Your task to perform on an android device: See recent photos Image 0: 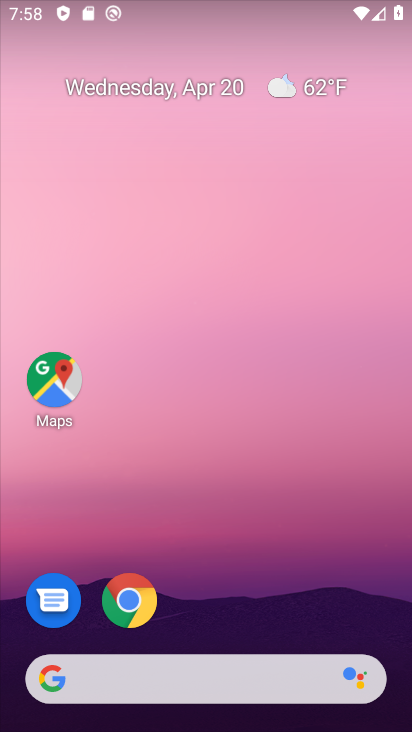
Step 0: drag from (205, 697) to (200, 115)
Your task to perform on an android device: See recent photos Image 1: 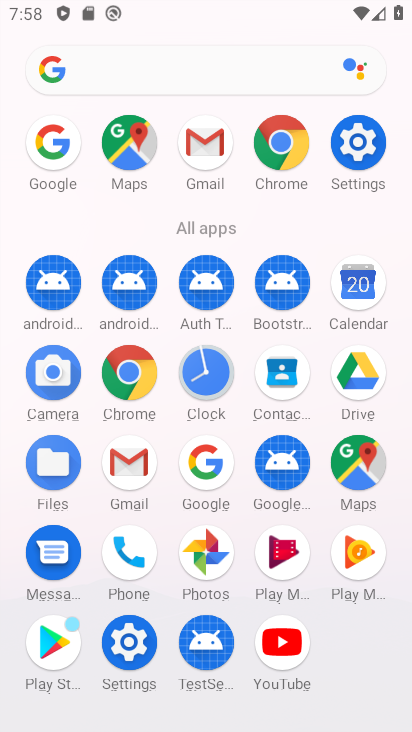
Step 1: click (209, 549)
Your task to perform on an android device: See recent photos Image 2: 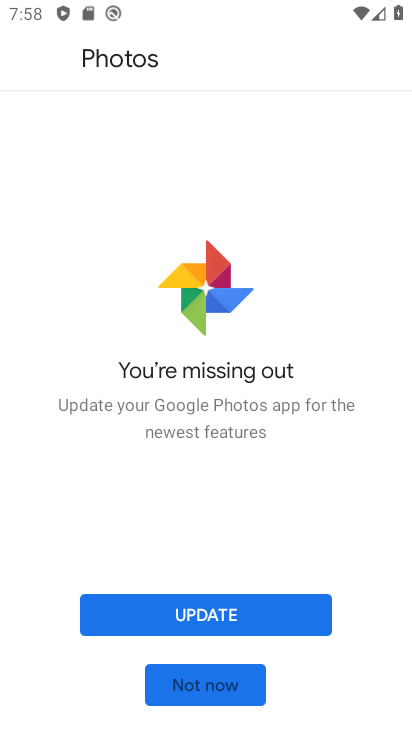
Step 2: click (211, 615)
Your task to perform on an android device: See recent photos Image 3: 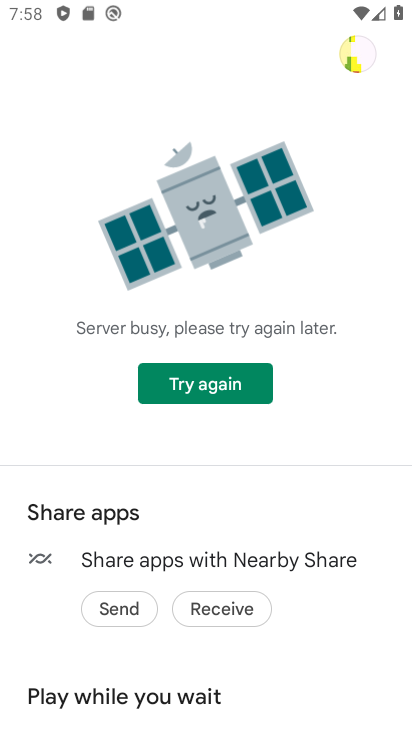
Step 3: click (201, 385)
Your task to perform on an android device: See recent photos Image 4: 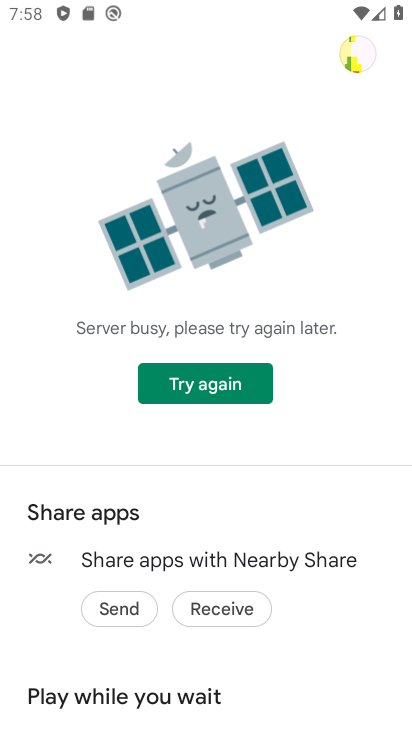
Step 4: task complete